Your task to perform on an android device: open wifi settings Image 0: 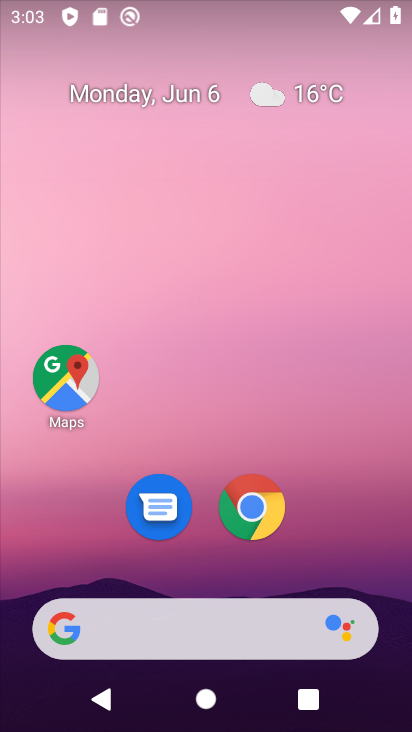
Step 0: drag from (192, 576) to (229, 156)
Your task to perform on an android device: open wifi settings Image 1: 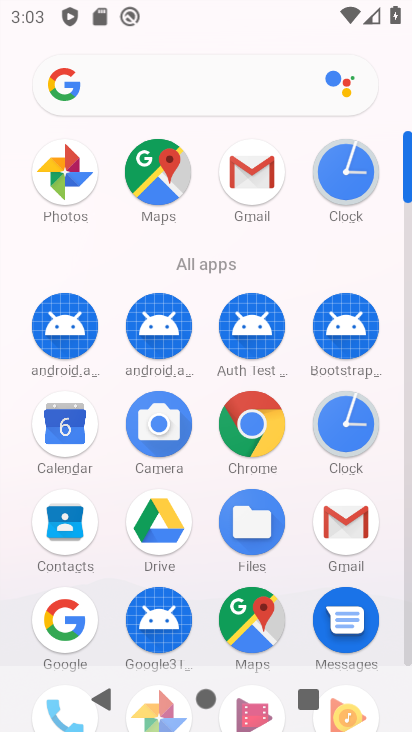
Step 1: drag from (195, 456) to (199, 155)
Your task to perform on an android device: open wifi settings Image 2: 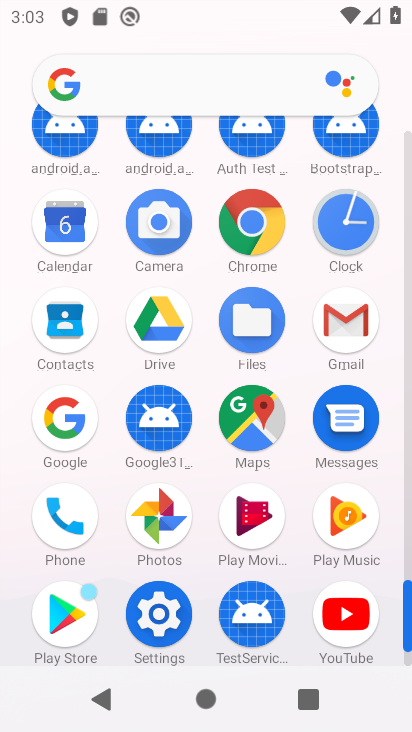
Step 2: click (149, 589)
Your task to perform on an android device: open wifi settings Image 3: 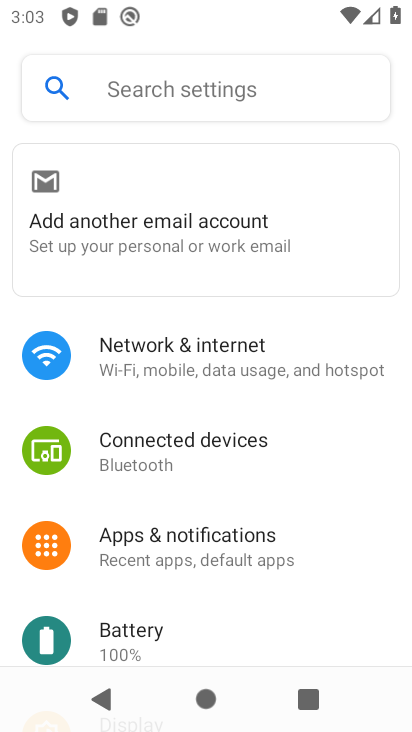
Step 3: click (181, 369)
Your task to perform on an android device: open wifi settings Image 4: 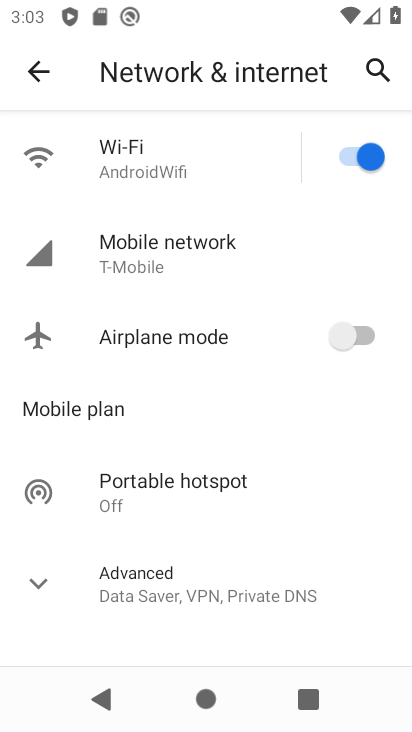
Step 4: click (146, 163)
Your task to perform on an android device: open wifi settings Image 5: 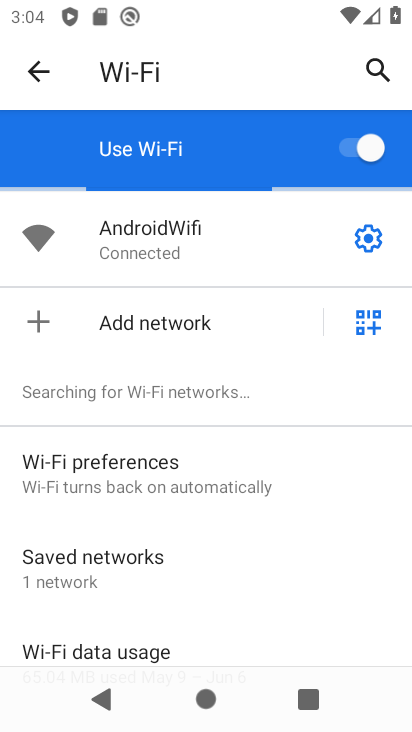
Step 5: task complete